Your task to perform on an android device: toggle priority inbox in the gmail app Image 0: 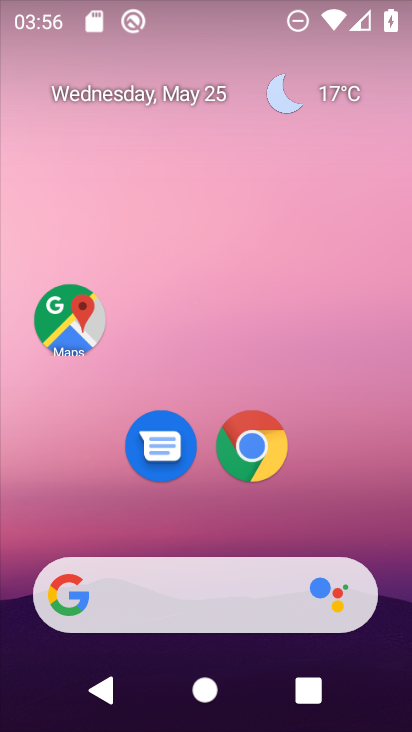
Step 0: drag from (204, 628) to (236, 332)
Your task to perform on an android device: toggle priority inbox in the gmail app Image 1: 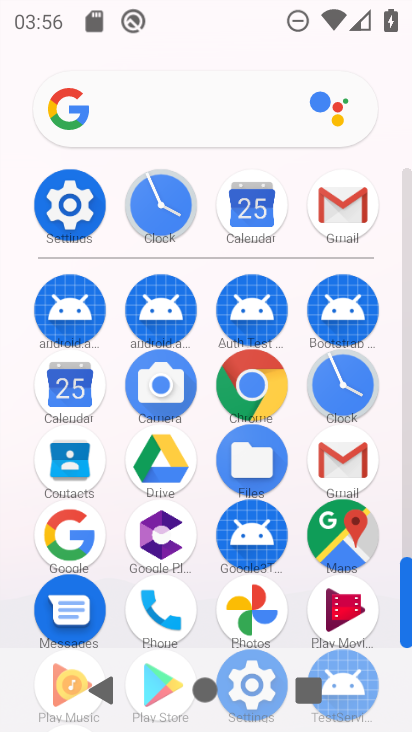
Step 1: click (350, 198)
Your task to perform on an android device: toggle priority inbox in the gmail app Image 2: 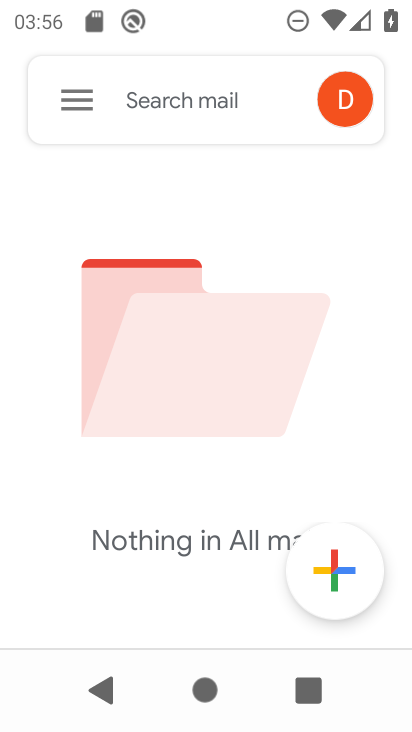
Step 2: click (78, 117)
Your task to perform on an android device: toggle priority inbox in the gmail app Image 3: 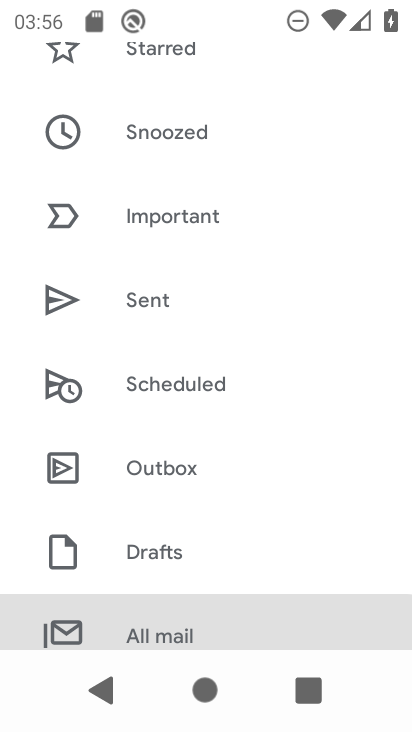
Step 3: drag from (135, 522) to (157, 74)
Your task to perform on an android device: toggle priority inbox in the gmail app Image 4: 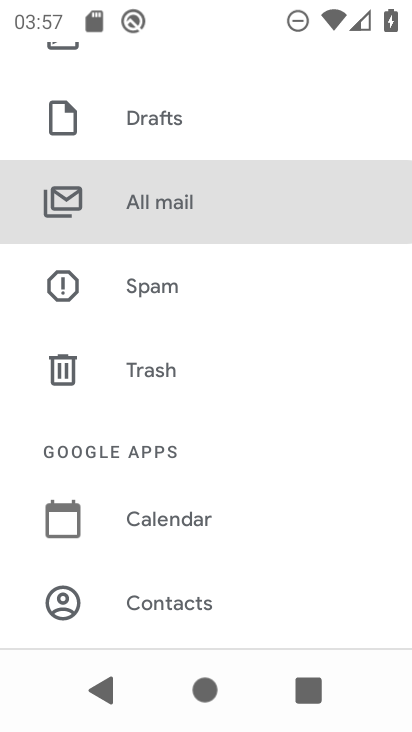
Step 4: drag from (158, 583) to (149, 166)
Your task to perform on an android device: toggle priority inbox in the gmail app Image 5: 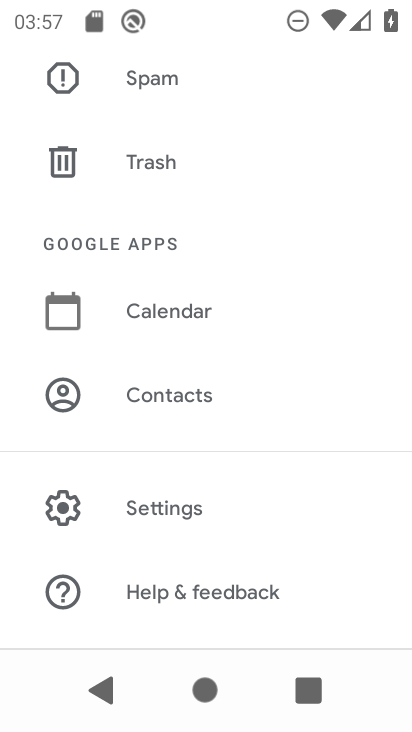
Step 5: click (138, 501)
Your task to perform on an android device: toggle priority inbox in the gmail app Image 6: 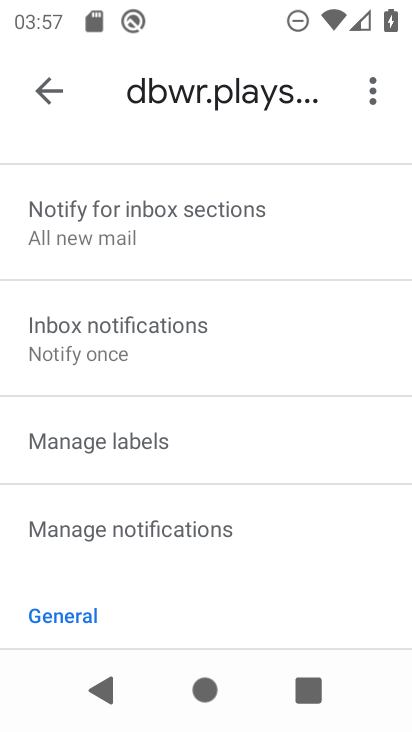
Step 6: drag from (133, 275) to (141, 587)
Your task to perform on an android device: toggle priority inbox in the gmail app Image 7: 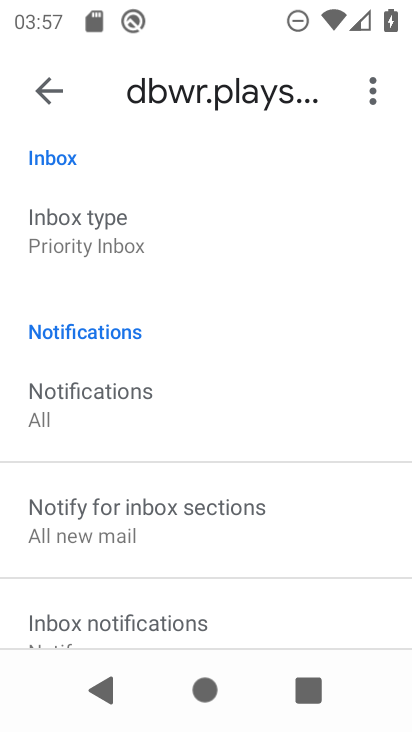
Step 7: click (137, 223)
Your task to perform on an android device: toggle priority inbox in the gmail app Image 8: 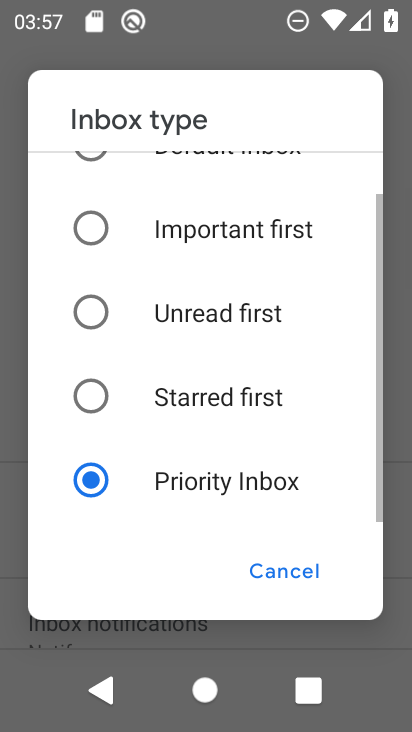
Step 8: drag from (154, 218) to (178, 516)
Your task to perform on an android device: toggle priority inbox in the gmail app Image 9: 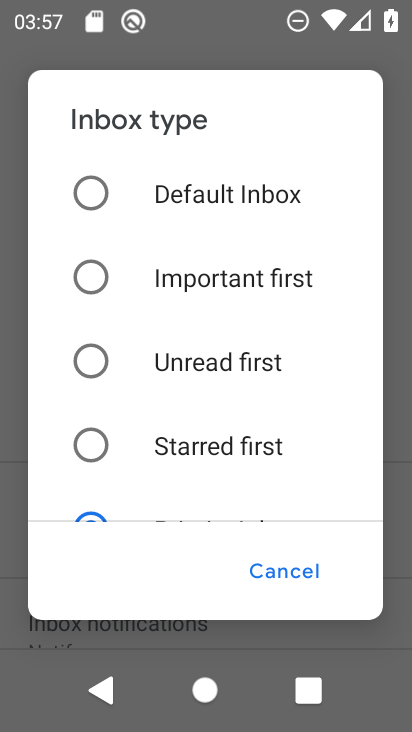
Step 9: click (177, 196)
Your task to perform on an android device: toggle priority inbox in the gmail app Image 10: 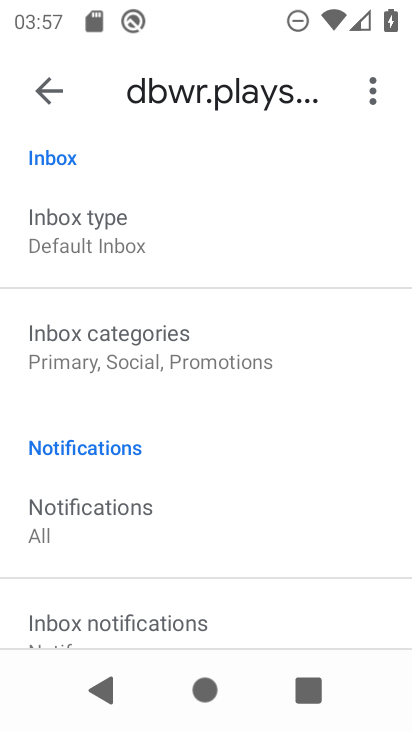
Step 10: task complete